Your task to perform on an android device: Open accessibility settings Image 0: 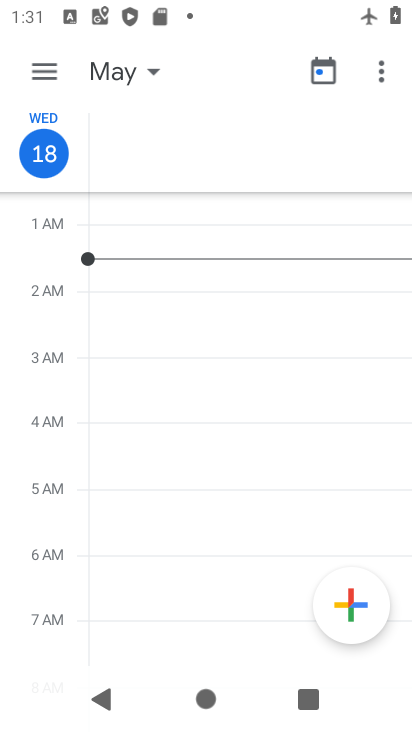
Step 0: press home button
Your task to perform on an android device: Open accessibility settings Image 1: 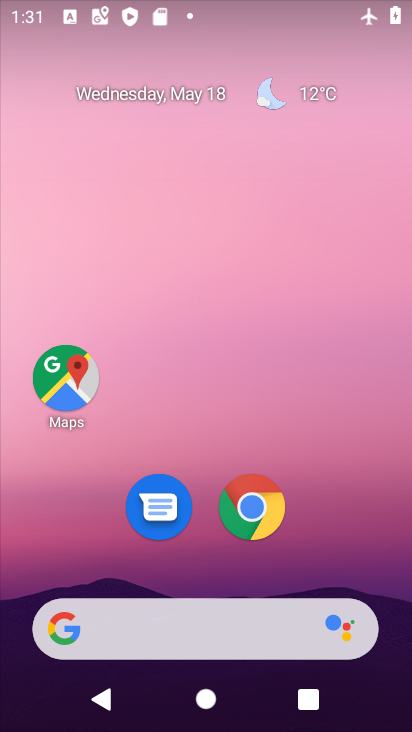
Step 1: drag from (396, 620) to (253, 123)
Your task to perform on an android device: Open accessibility settings Image 2: 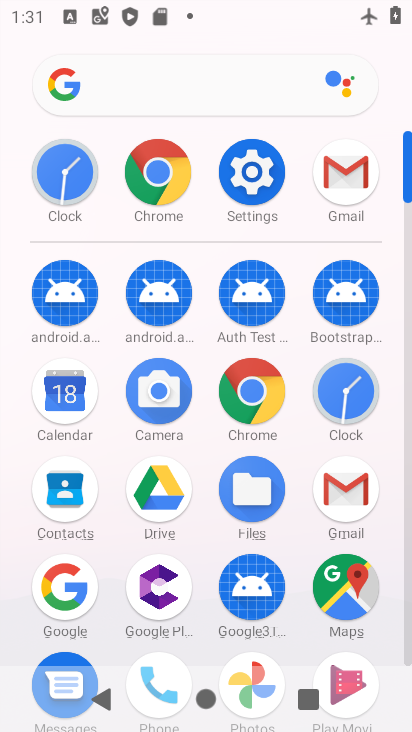
Step 2: click (410, 651)
Your task to perform on an android device: Open accessibility settings Image 3: 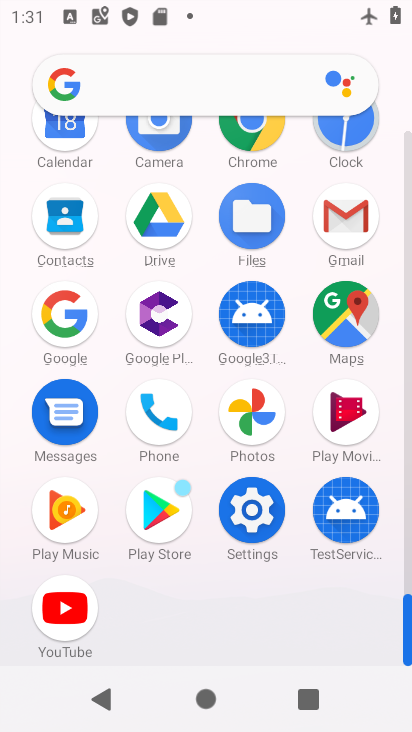
Step 3: click (250, 514)
Your task to perform on an android device: Open accessibility settings Image 4: 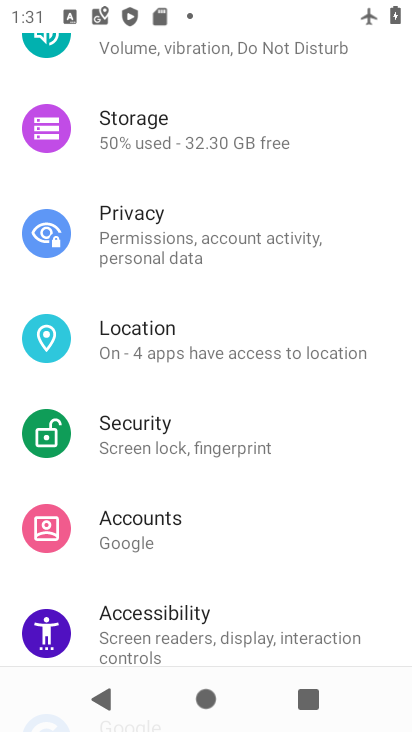
Step 4: click (254, 635)
Your task to perform on an android device: Open accessibility settings Image 5: 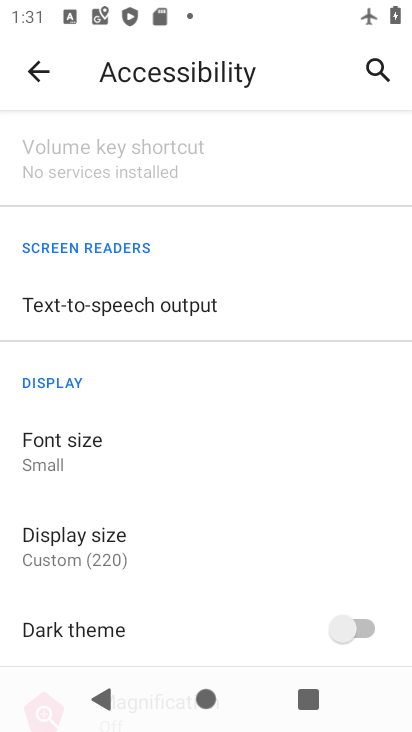
Step 5: task complete